Your task to perform on an android device: check android version Image 0: 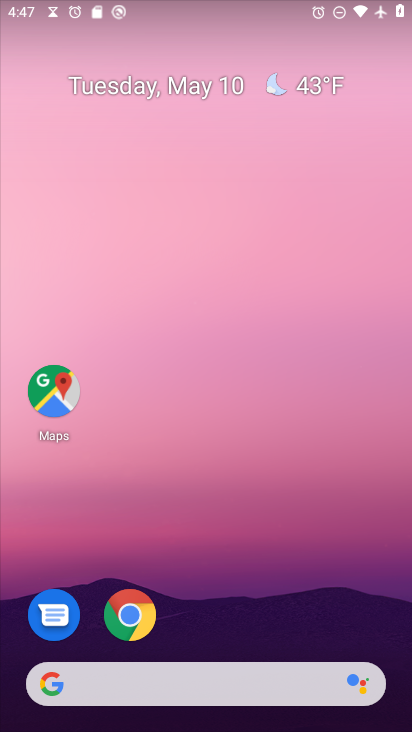
Step 0: drag from (220, 571) to (204, 75)
Your task to perform on an android device: check android version Image 1: 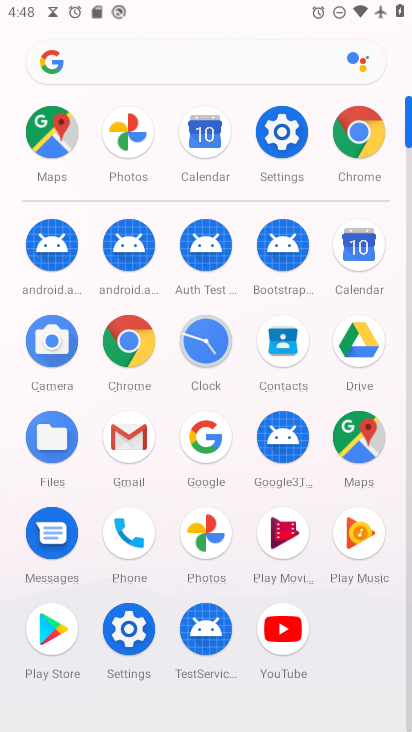
Step 1: drag from (12, 448) to (19, 247)
Your task to perform on an android device: check android version Image 2: 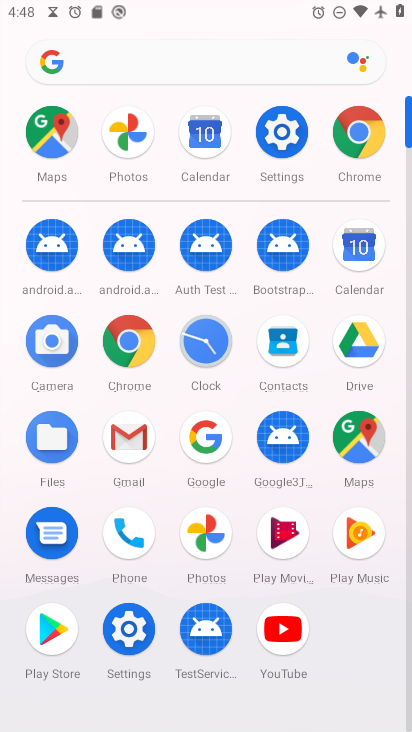
Step 2: click (134, 626)
Your task to perform on an android device: check android version Image 3: 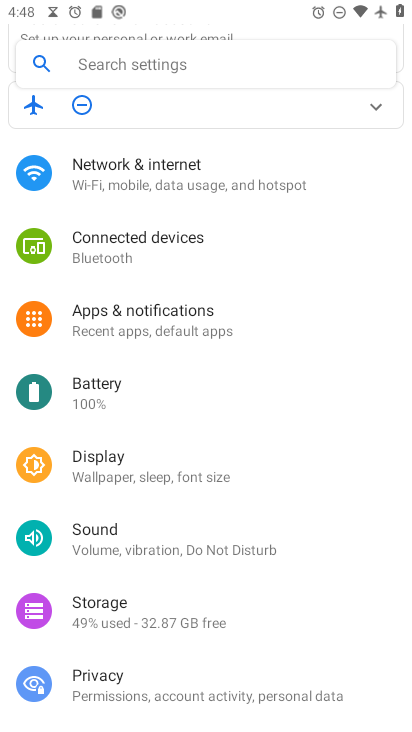
Step 3: drag from (231, 629) to (280, 106)
Your task to perform on an android device: check android version Image 4: 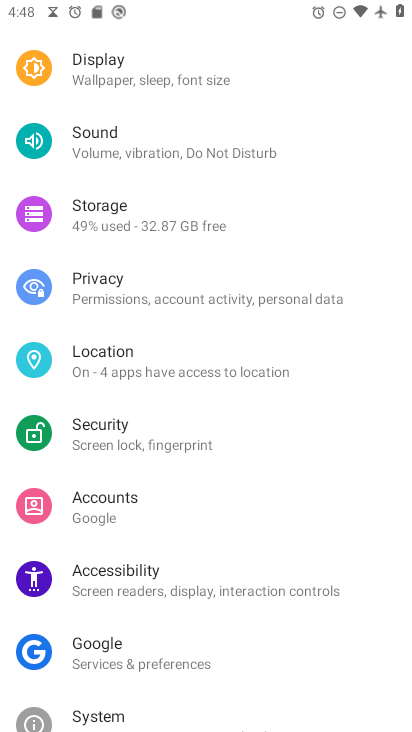
Step 4: drag from (284, 645) to (296, 130)
Your task to perform on an android device: check android version Image 5: 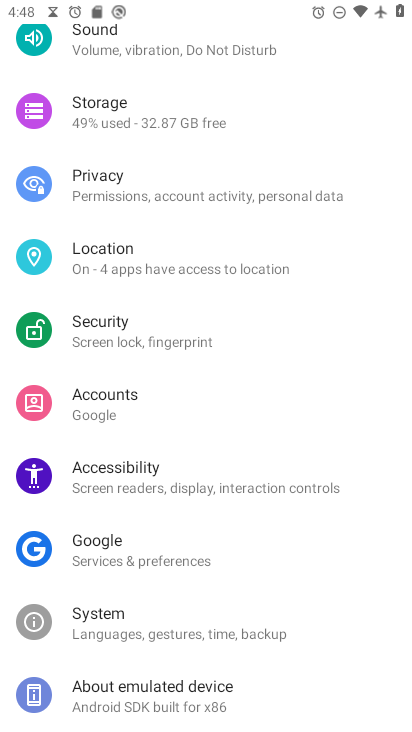
Step 5: click (165, 617)
Your task to perform on an android device: check android version Image 6: 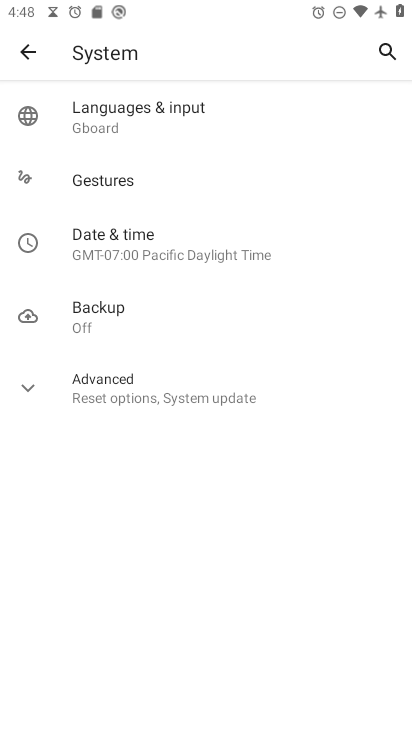
Step 6: click (57, 393)
Your task to perform on an android device: check android version Image 7: 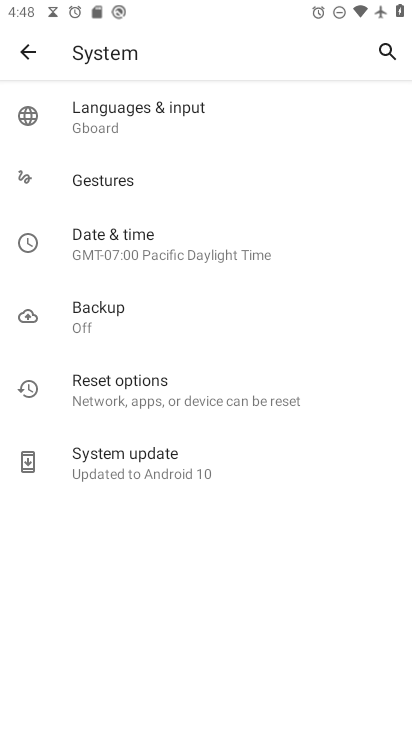
Step 7: click (31, 50)
Your task to perform on an android device: check android version Image 8: 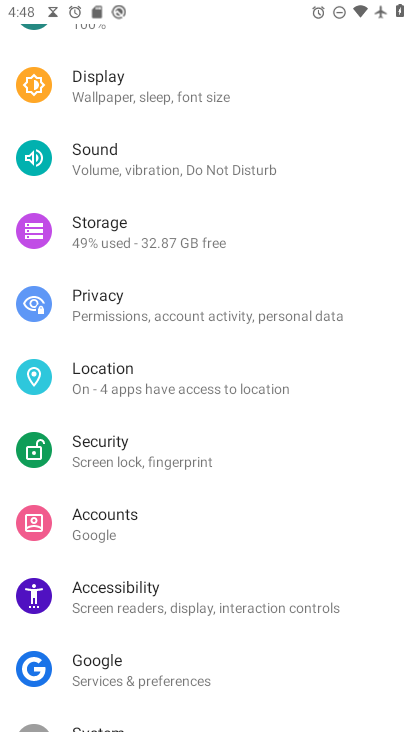
Step 8: drag from (177, 690) to (235, 58)
Your task to perform on an android device: check android version Image 9: 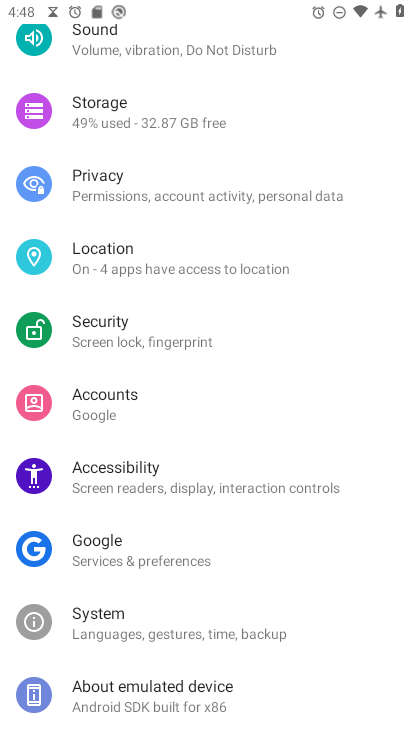
Step 9: click (158, 682)
Your task to perform on an android device: check android version Image 10: 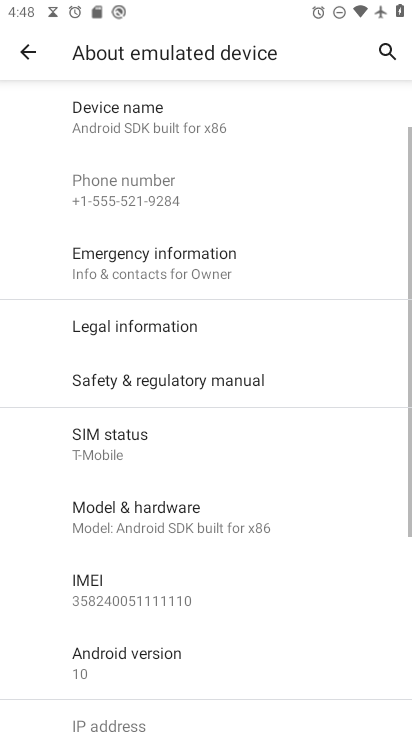
Step 10: click (164, 648)
Your task to perform on an android device: check android version Image 11: 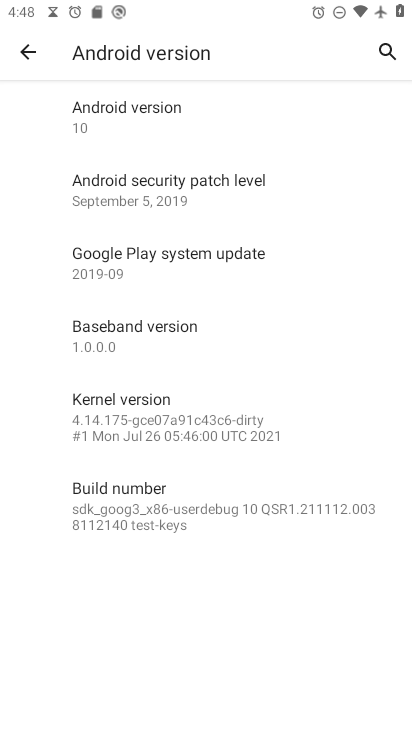
Step 11: task complete